Your task to perform on an android device: When is my next meeting? Image 0: 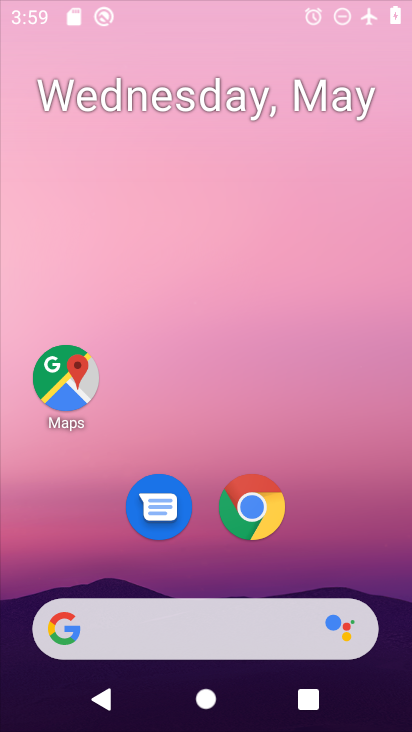
Step 0: drag from (243, 612) to (212, 209)
Your task to perform on an android device: When is my next meeting? Image 1: 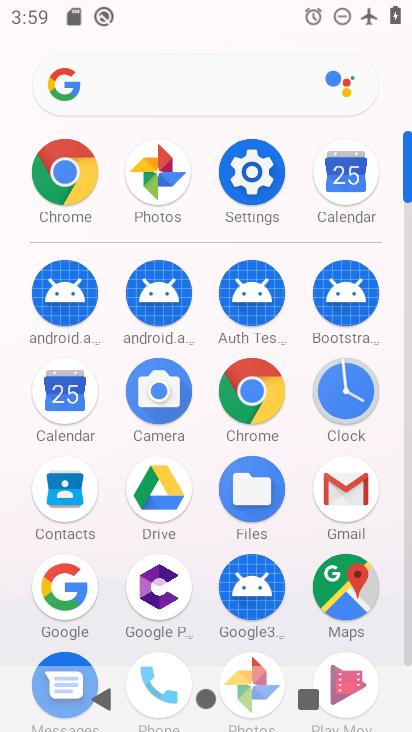
Step 1: click (80, 396)
Your task to perform on an android device: When is my next meeting? Image 2: 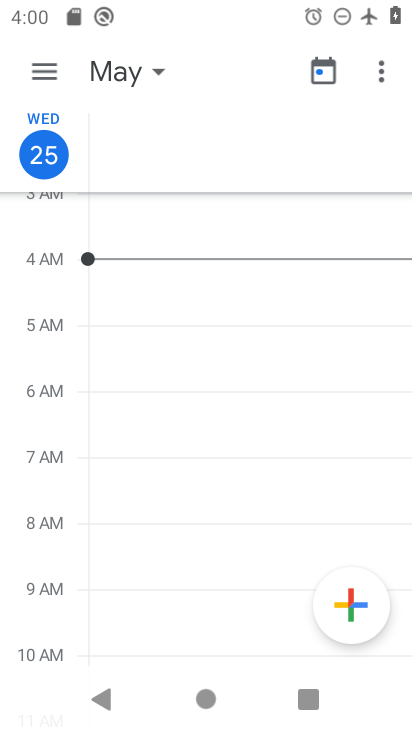
Step 2: click (105, 122)
Your task to perform on an android device: When is my next meeting? Image 3: 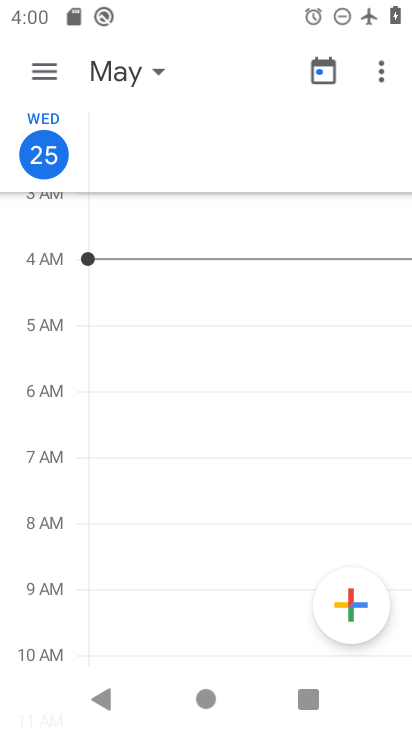
Step 3: click (138, 73)
Your task to perform on an android device: When is my next meeting? Image 4: 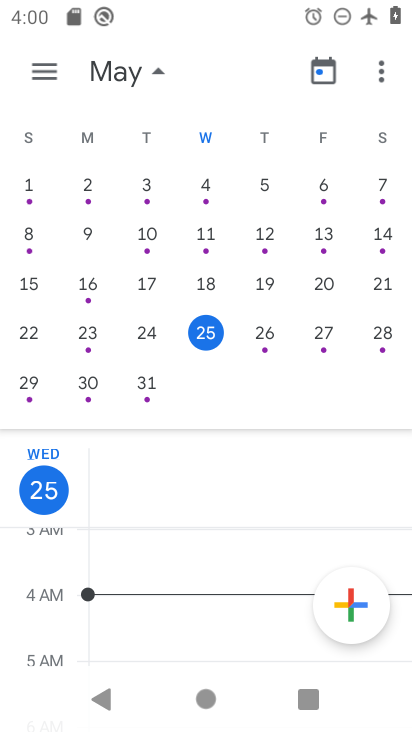
Step 4: task complete